Your task to perform on an android device: Check the weather Image 0: 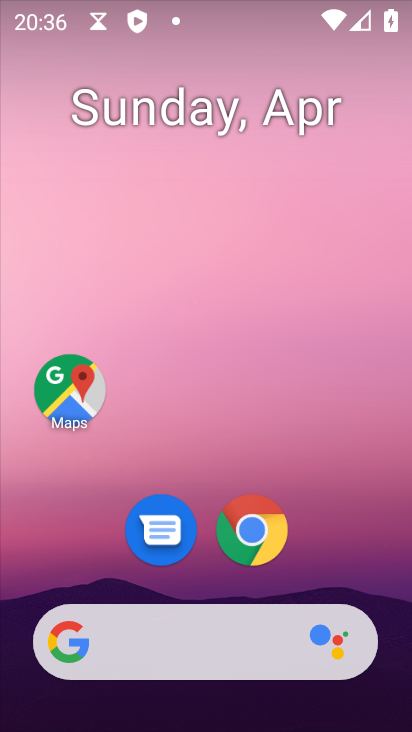
Step 0: click (206, 645)
Your task to perform on an android device: Check the weather Image 1: 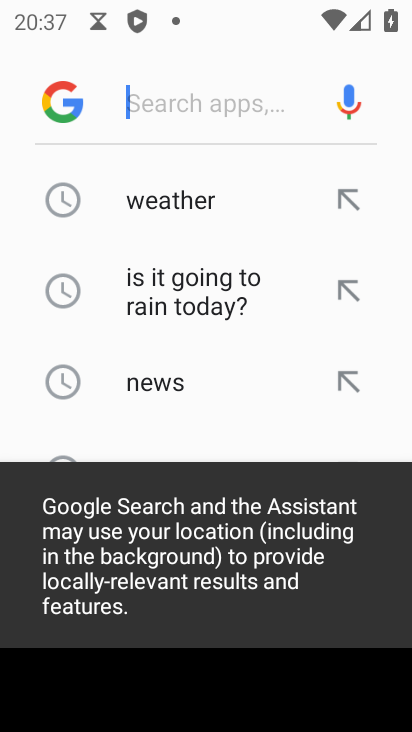
Step 1: click (138, 189)
Your task to perform on an android device: Check the weather Image 2: 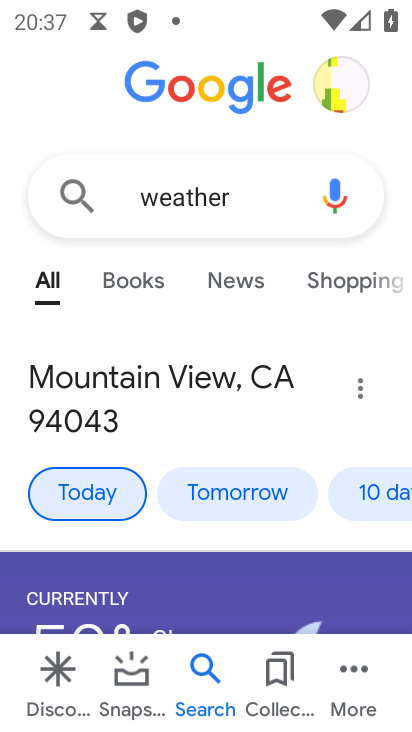
Step 2: task complete